Your task to perform on an android device: turn off location history Image 0: 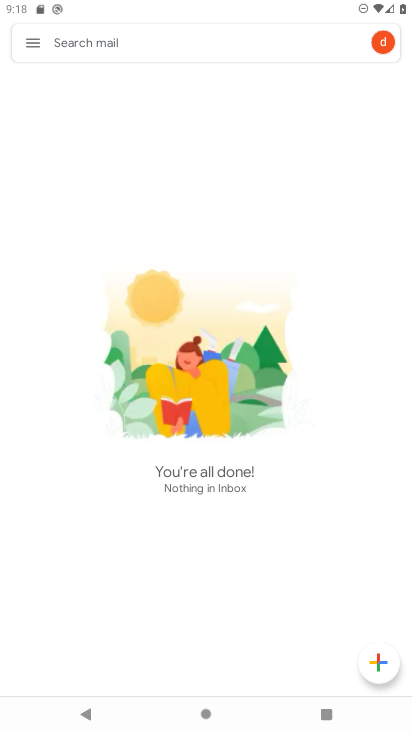
Step 0: press home button
Your task to perform on an android device: turn off location history Image 1: 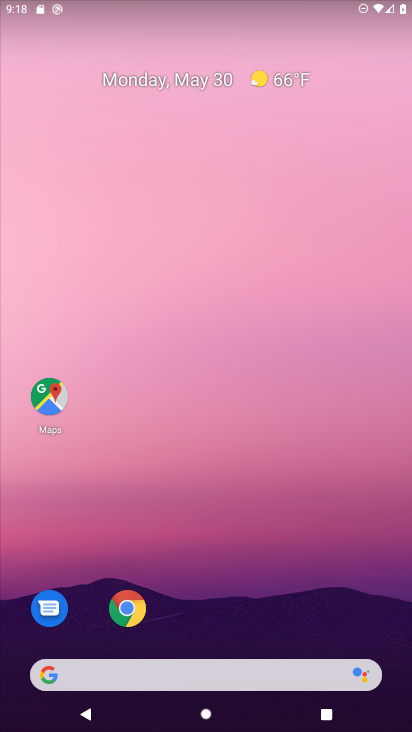
Step 1: drag from (224, 722) to (225, 124)
Your task to perform on an android device: turn off location history Image 2: 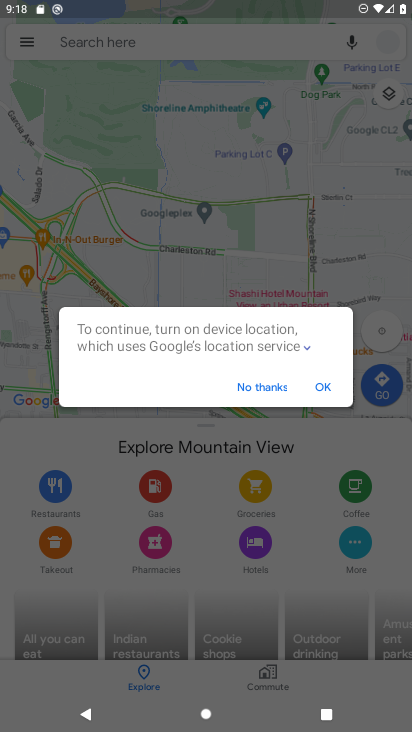
Step 2: click (47, 115)
Your task to perform on an android device: turn off location history Image 3: 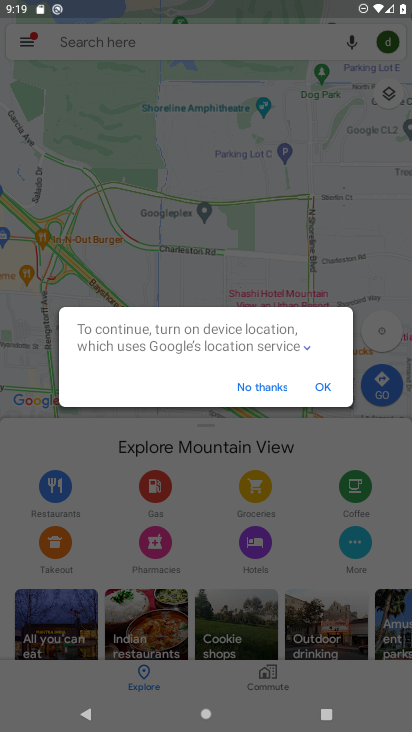
Step 3: press home button
Your task to perform on an android device: turn off location history Image 4: 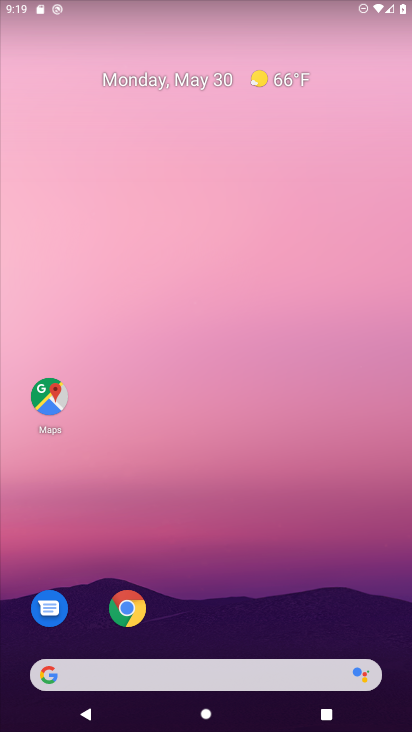
Step 4: drag from (224, 723) to (218, 10)
Your task to perform on an android device: turn off location history Image 5: 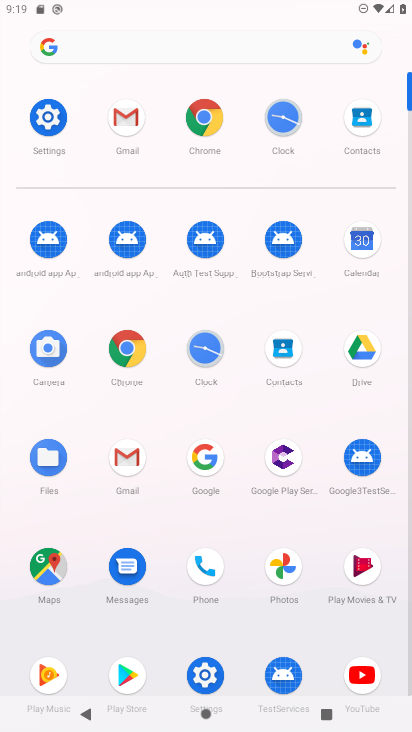
Step 5: click (50, 113)
Your task to perform on an android device: turn off location history Image 6: 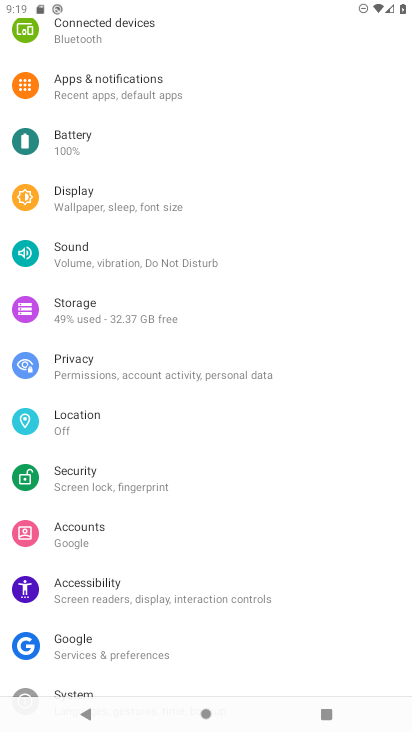
Step 6: click (63, 425)
Your task to perform on an android device: turn off location history Image 7: 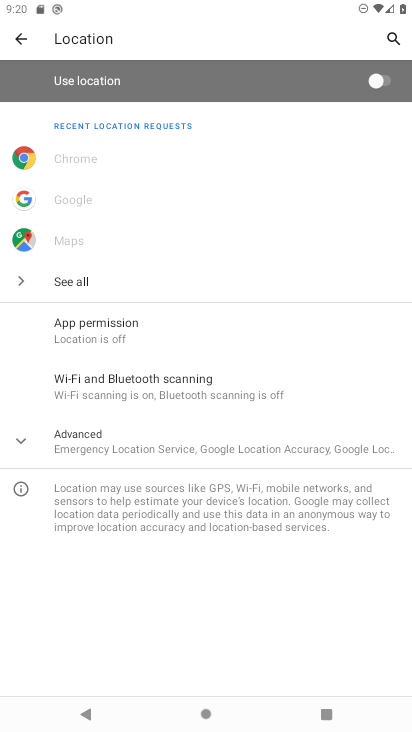
Step 7: click (74, 432)
Your task to perform on an android device: turn off location history Image 8: 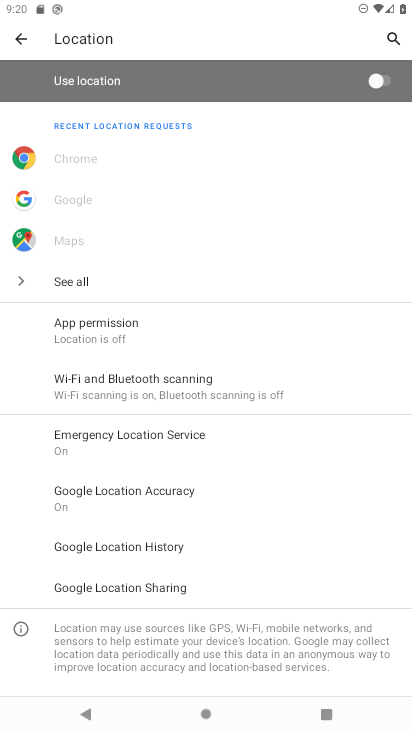
Step 8: click (135, 543)
Your task to perform on an android device: turn off location history Image 9: 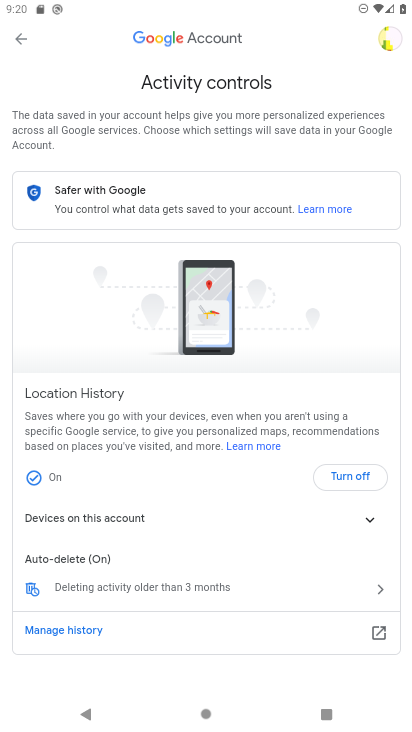
Step 9: click (359, 474)
Your task to perform on an android device: turn off location history Image 10: 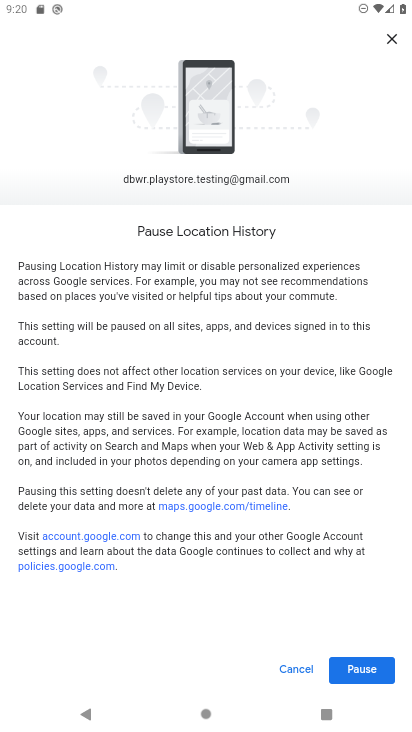
Step 10: click (358, 662)
Your task to perform on an android device: turn off location history Image 11: 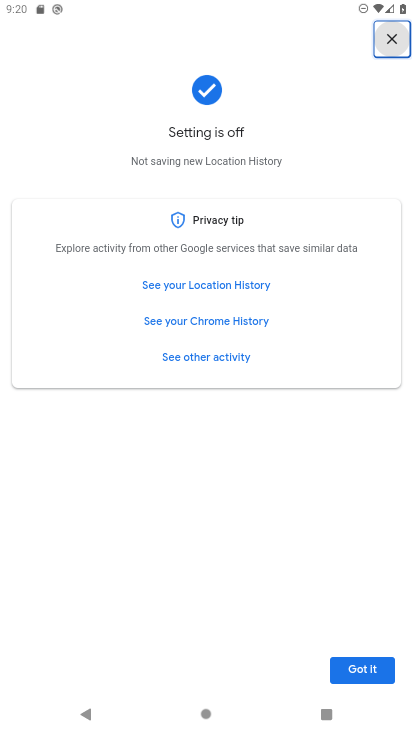
Step 11: click (358, 662)
Your task to perform on an android device: turn off location history Image 12: 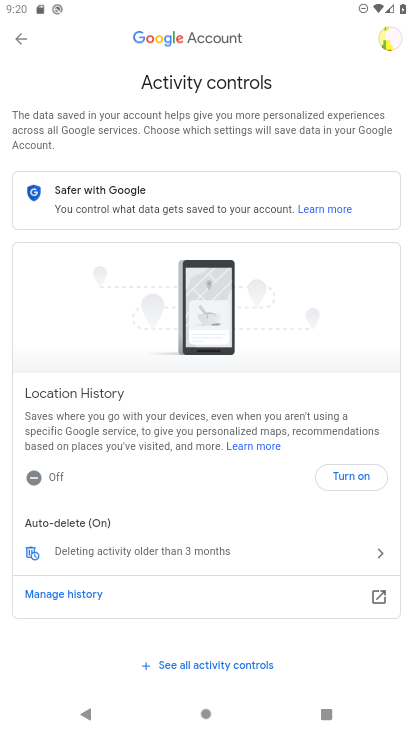
Step 12: task complete